Your task to perform on an android device: Open Yahoo.com Image 0: 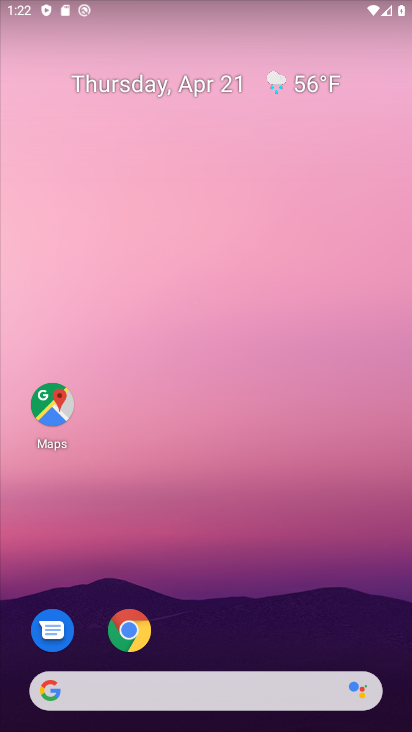
Step 0: click (126, 627)
Your task to perform on an android device: Open Yahoo.com Image 1: 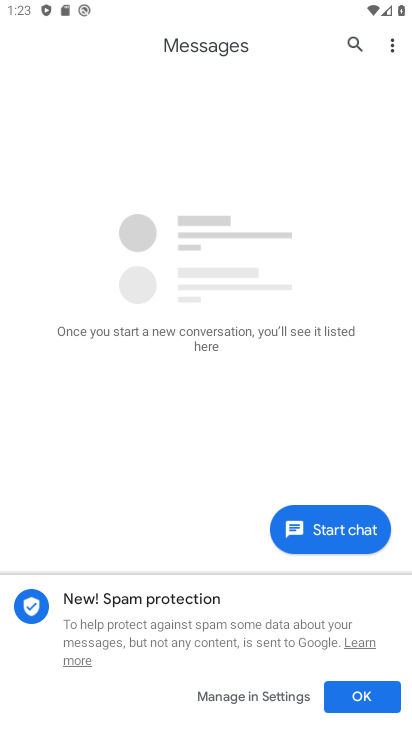
Step 1: press back button
Your task to perform on an android device: Open Yahoo.com Image 2: 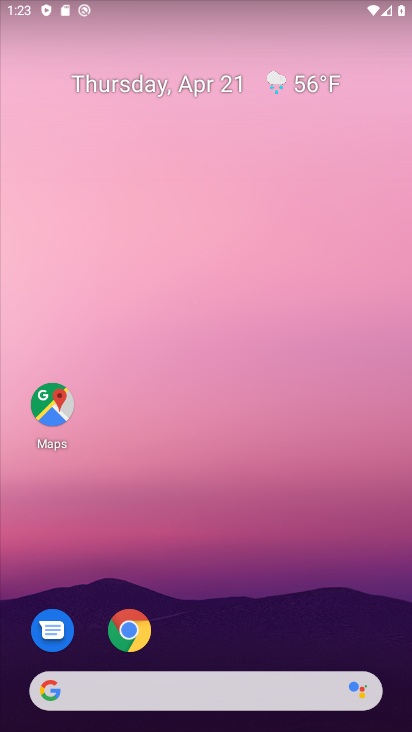
Step 2: click (127, 631)
Your task to perform on an android device: Open Yahoo.com Image 3: 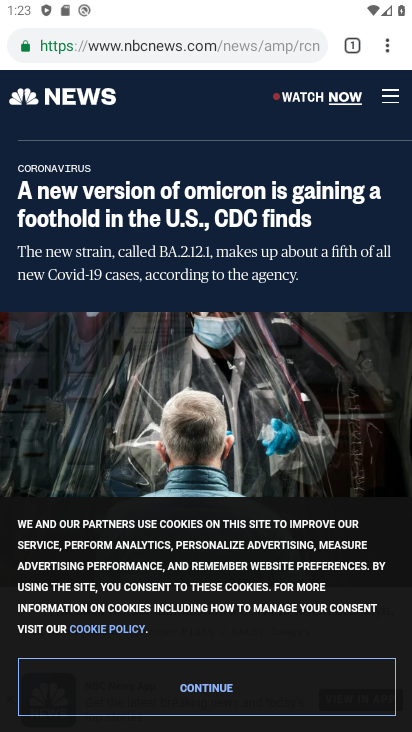
Step 3: click (274, 44)
Your task to perform on an android device: Open Yahoo.com Image 4: 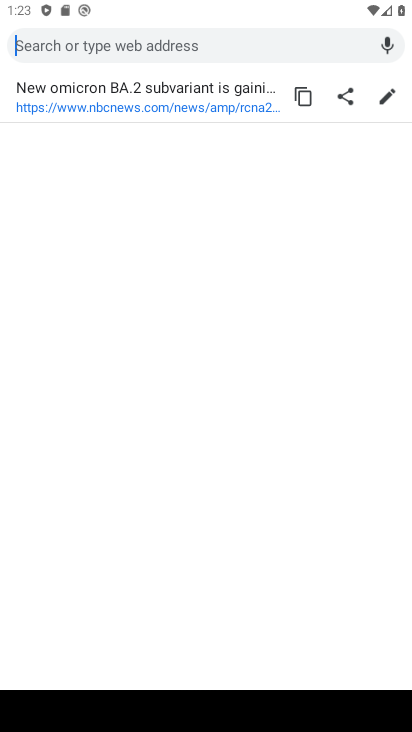
Step 4: type "yahoo.com"
Your task to perform on an android device: Open Yahoo.com Image 5: 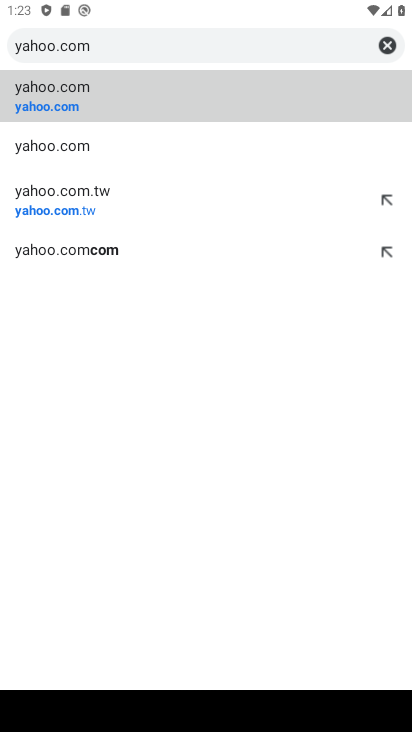
Step 5: click (249, 103)
Your task to perform on an android device: Open Yahoo.com Image 6: 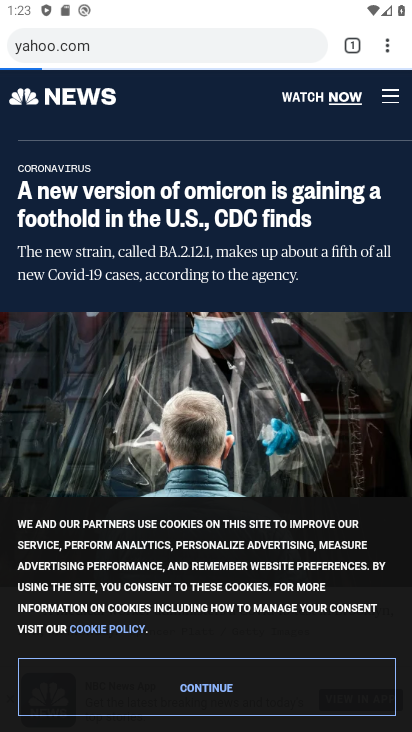
Step 6: task complete